Your task to perform on an android device: Go to Google Image 0: 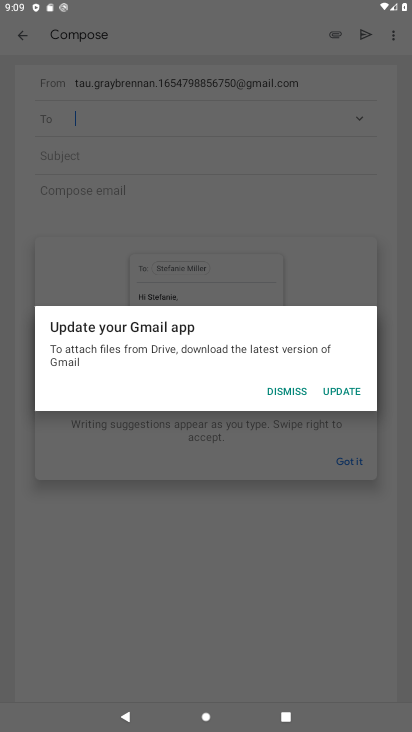
Step 0: press home button
Your task to perform on an android device: Go to Google Image 1: 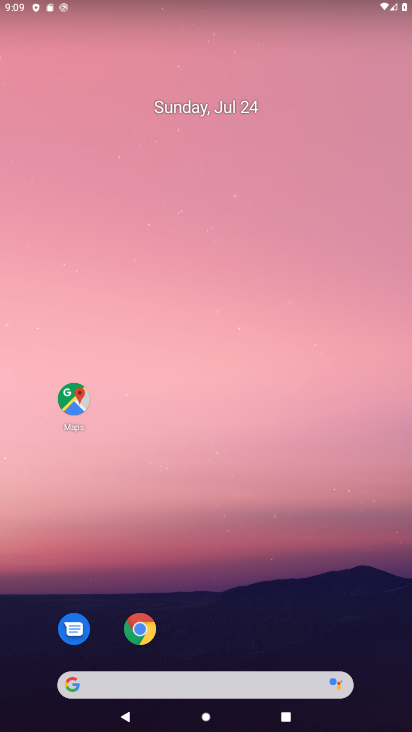
Step 1: task complete